Your task to perform on an android device: see sites visited before in the chrome app Image 0: 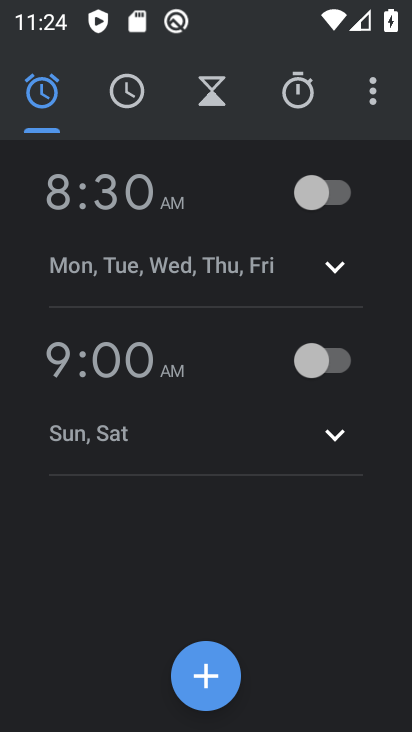
Step 0: press back button
Your task to perform on an android device: see sites visited before in the chrome app Image 1: 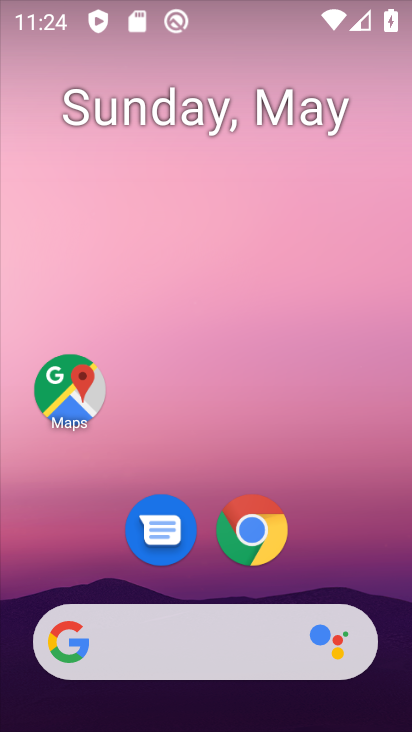
Step 1: click (291, 519)
Your task to perform on an android device: see sites visited before in the chrome app Image 2: 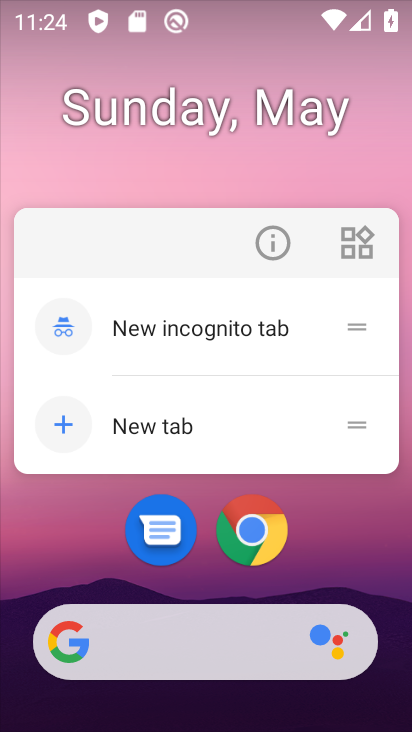
Step 2: click (255, 528)
Your task to perform on an android device: see sites visited before in the chrome app Image 3: 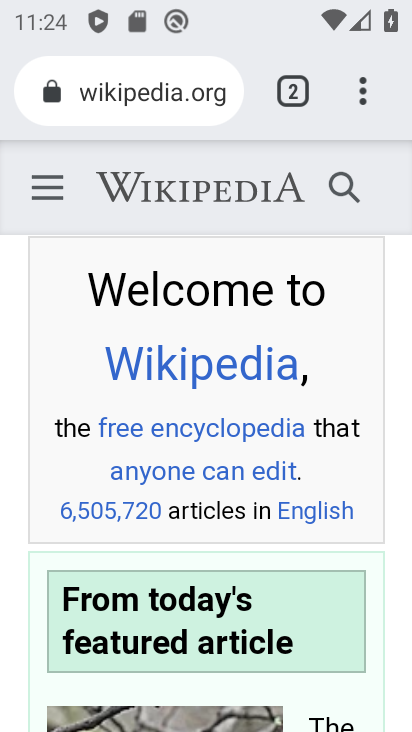
Step 3: task complete